Your task to perform on an android device: Go to battery settings Image 0: 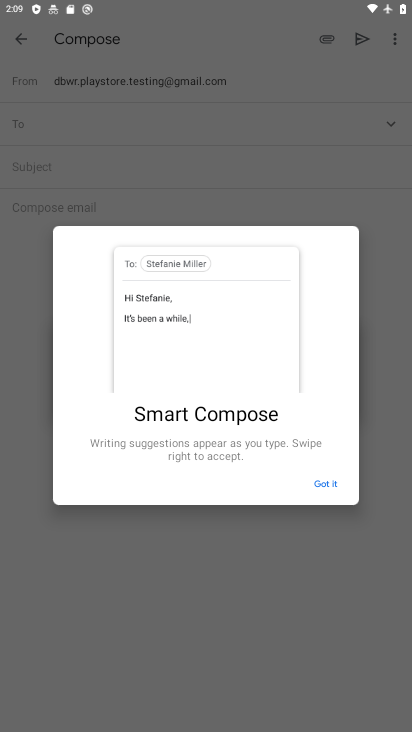
Step 0: press home button
Your task to perform on an android device: Go to battery settings Image 1: 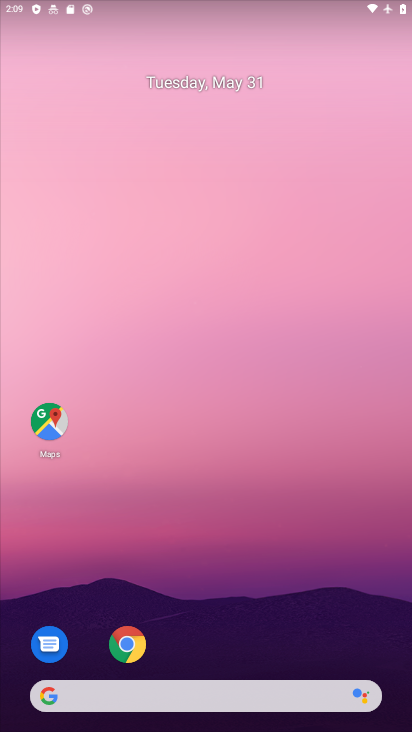
Step 1: drag from (260, 644) to (218, 98)
Your task to perform on an android device: Go to battery settings Image 2: 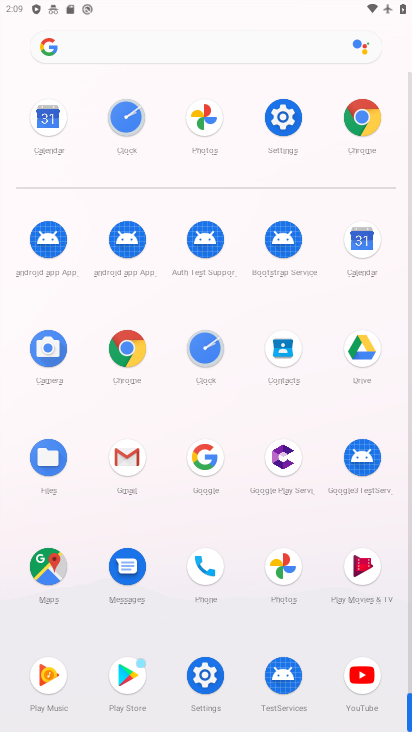
Step 2: click (281, 115)
Your task to perform on an android device: Go to battery settings Image 3: 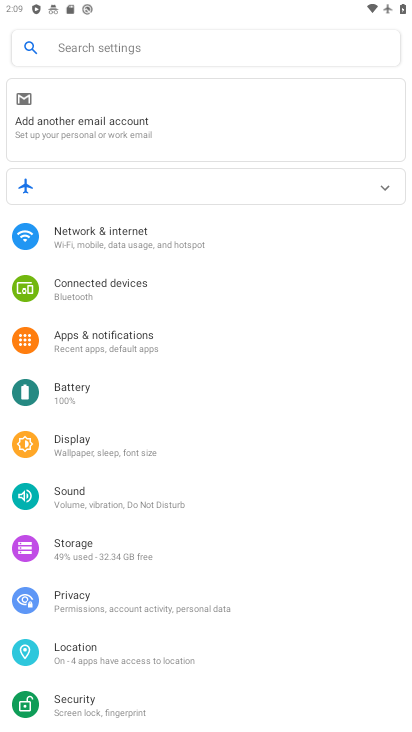
Step 3: click (67, 391)
Your task to perform on an android device: Go to battery settings Image 4: 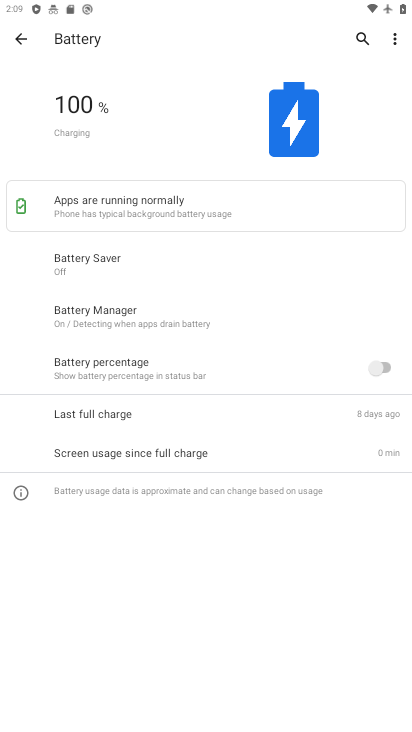
Step 4: task complete